Your task to perform on an android device: remove spam from my inbox in the gmail app Image 0: 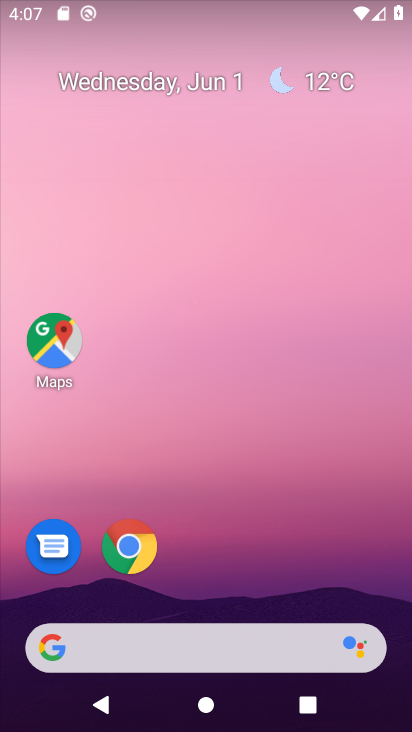
Step 0: drag from (183, 574) to (273, 108)
Your task to perform on an android device: remove spam from my inbox in the gmail app Image 1: 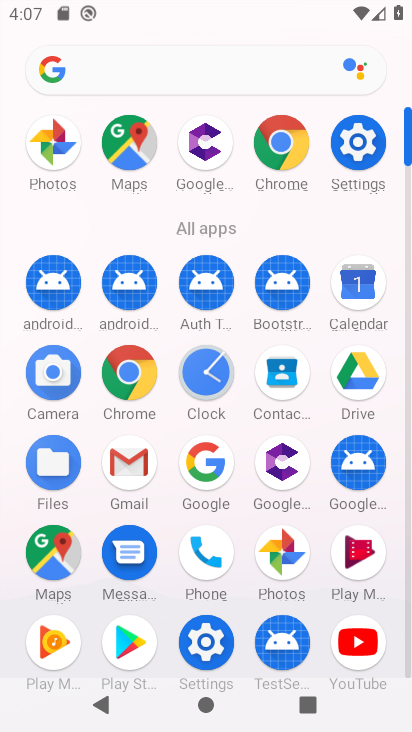
Step 1: click (112, 471)
Your task to perform on an android device: remove spam from my inbox in the gmail app Image 2: 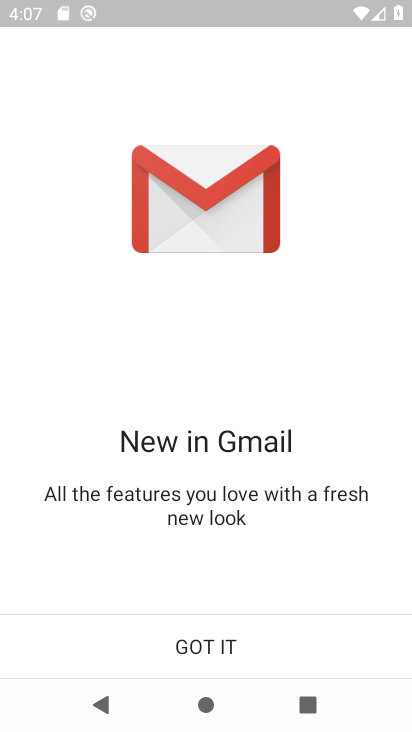
Step 2: click (190, 678)
Your task to perform on an android device: remove spam from my inbox in the gmail app Image 3: 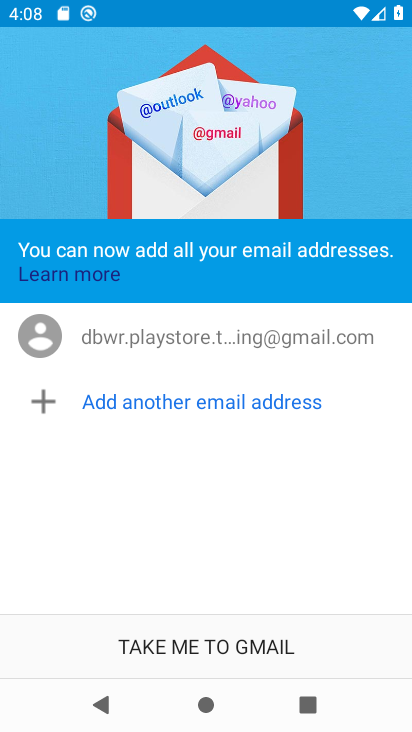
Step 3: click (195, 669)
Your task to perform on an android device: remove spam from my inbox in the gmail app Image 4: 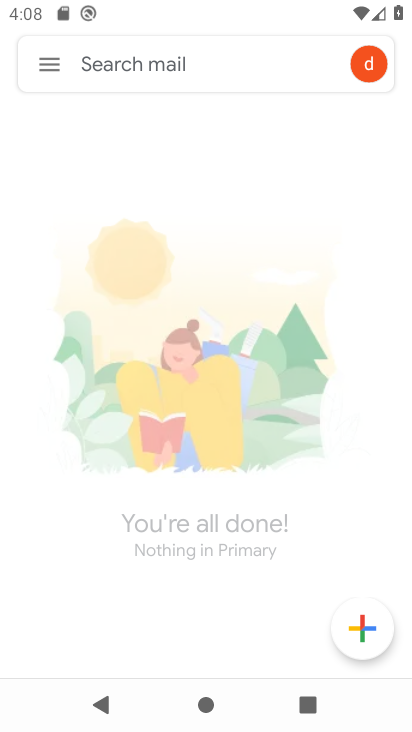
Step 4: click (56, 65)
Your task to perform on an android device: remove spam from my inbox in the gmail app Image 5: 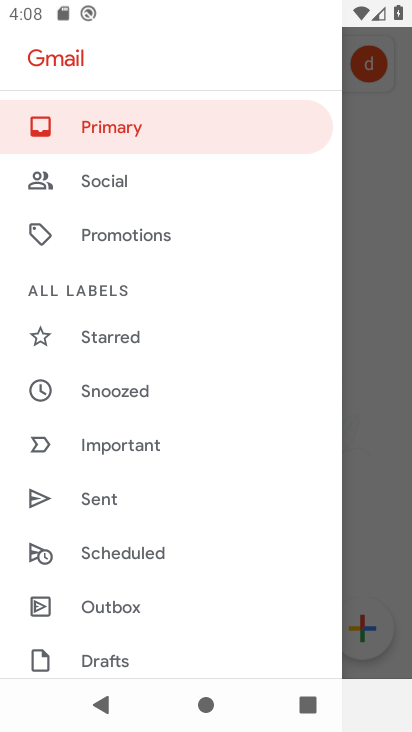
Step 5: drag from (137, 545) to (231, 194)
Your task to perform on an android device: remove spam from my inbox in the gmail app Image 6: 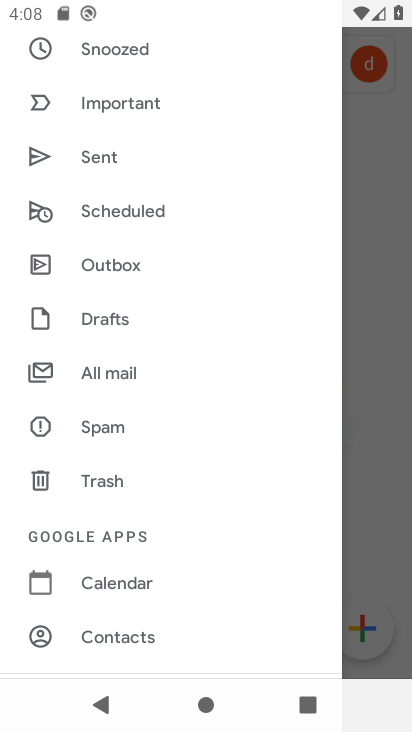
Step 6: click (136, 425)
Your task to perform on an android device: remove spam from my inbox in the gmail app Image 7: 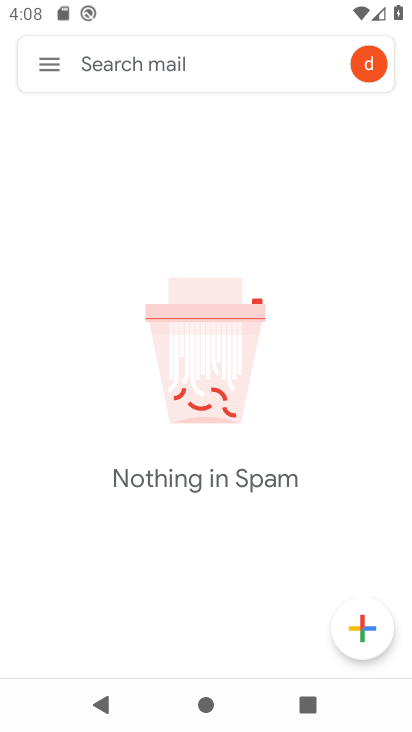
Step 7: task complete